Your task to perform on an android device: turn off sleep mode Image 0: 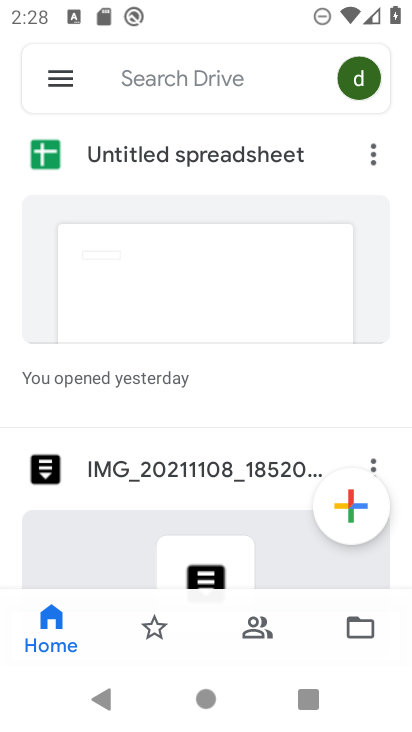
Step 0: task impossible